Your task to perform on an android device: Show me recent news Image 0: 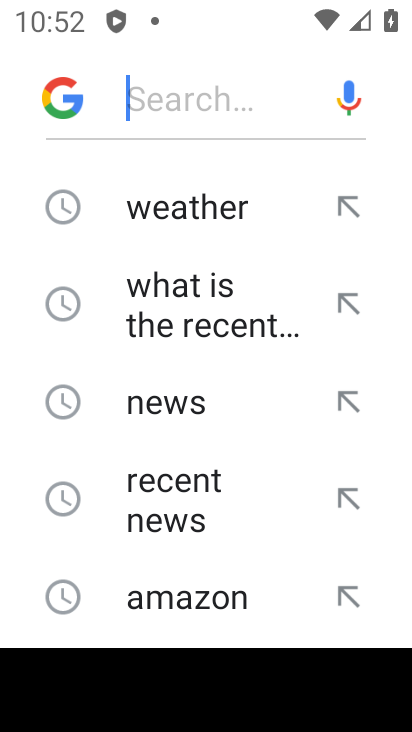
Step 0: type "recent news"
Your task to perform on an android device: Show me recent news Image 1: 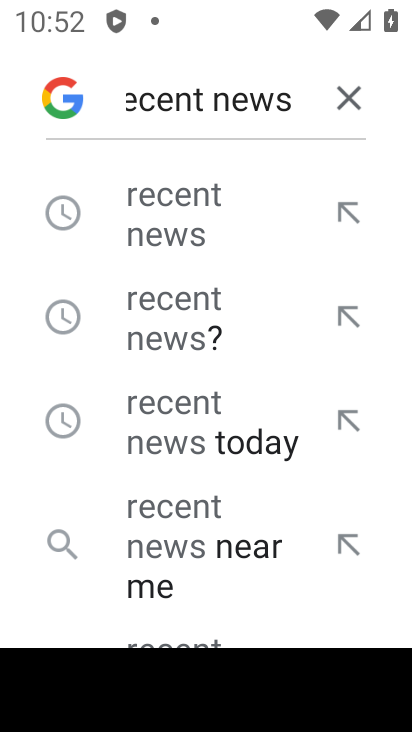
Step 1: click (189, 181)
Your task to perform on an android device: Show me recent news Image 2: 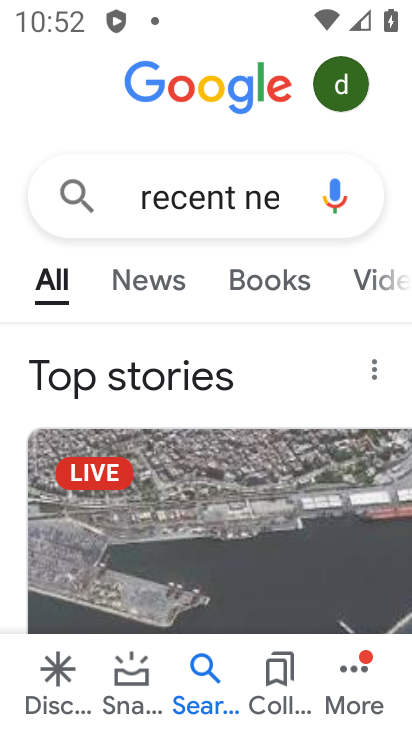
Step 2: click (145, 268)
Your task to perform on an android device: Show me recent news Image 3: 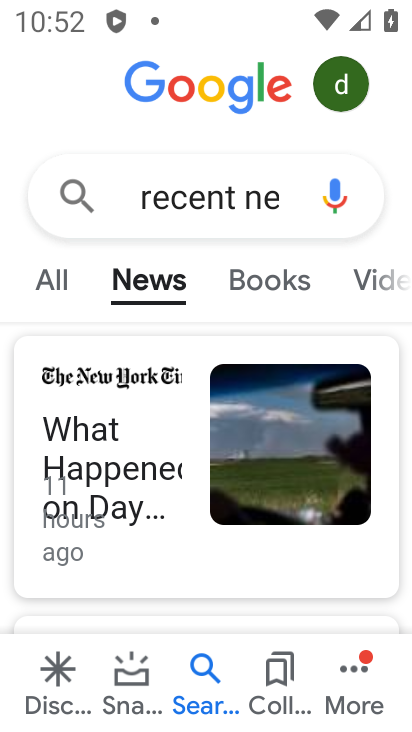
Step 3: task complete